Your task to perform on an android device: Open location settings Image 0: 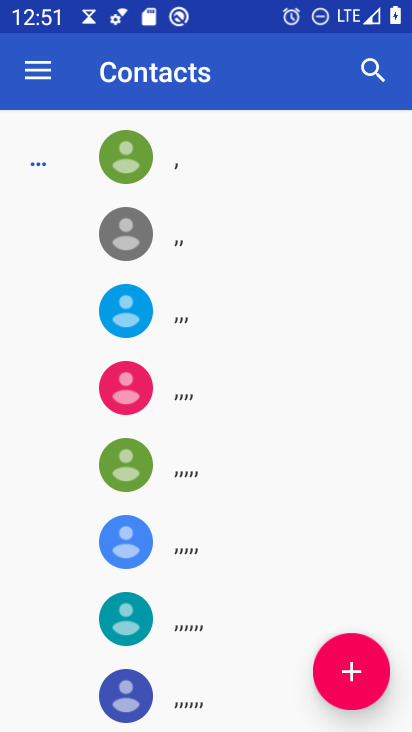
Step 0: drag from (285, 656) to (312, 430)
Your task to perform on an android device: Open location settings Image 1: 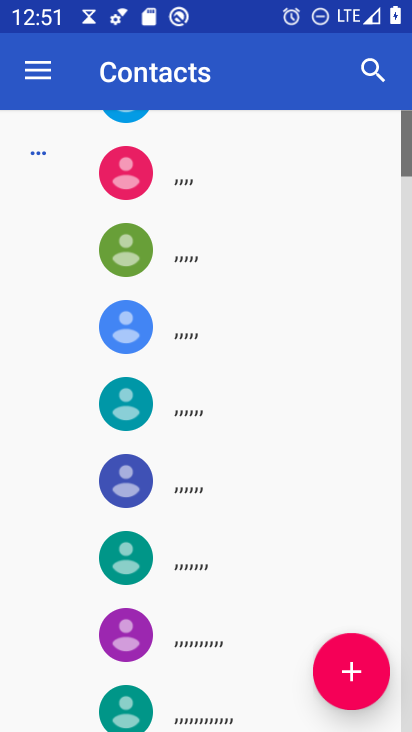
Step 1: press home button
Your task to perform on an android device: Open location settings Image 2: 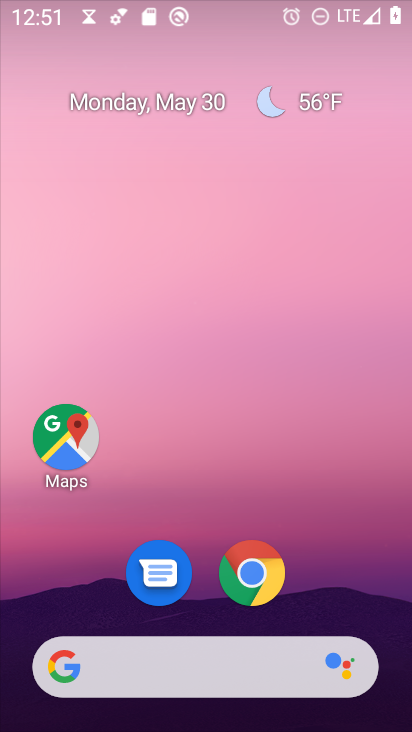
Step 2: drag from (230, 656) to (202, 13)
Your task to perform on an android device: Open location settings Image 3: 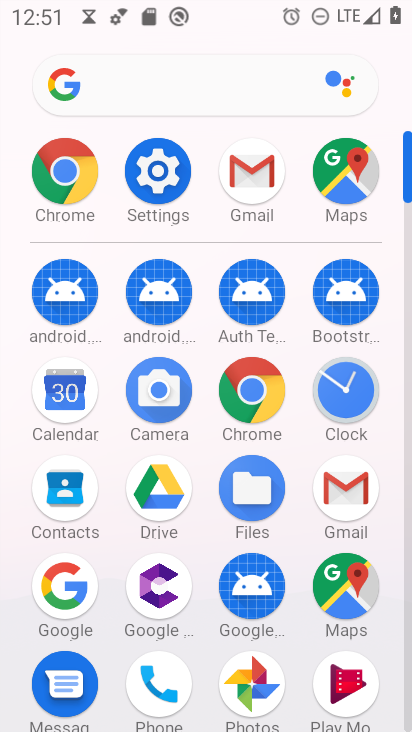
Step 3: click (163, 157)
Your task to perform on an android device: Open location settings Image 4: 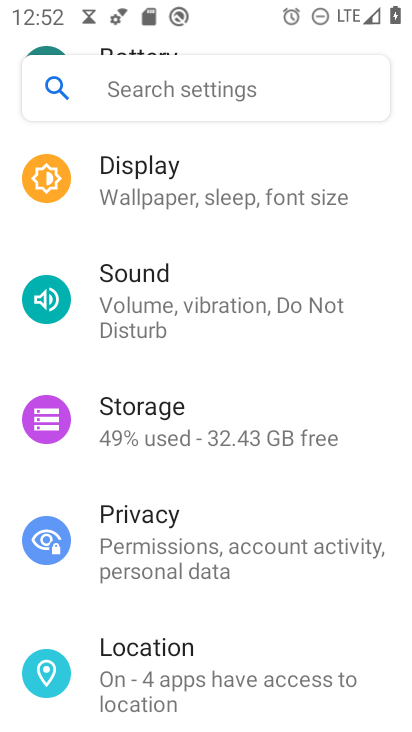
Step 4: click (222, 659)
Your task to perform on an android device: Open location settings Image 5: 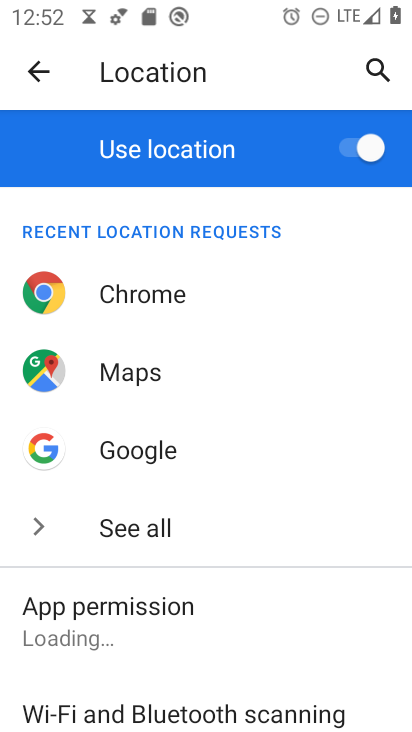
Step 5: task complete